Your task to perform on an android device: turn on notifications settings in the gmail app Image 0: 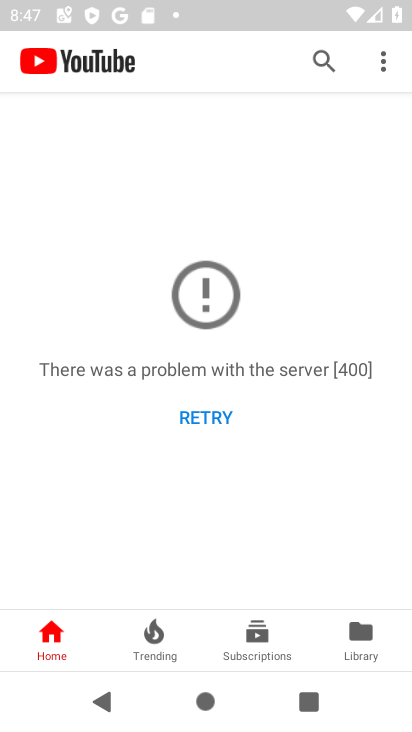
Step 0: press home button
Your task to perform on an android device: turn on notifications settings in the gmail app Image 1: 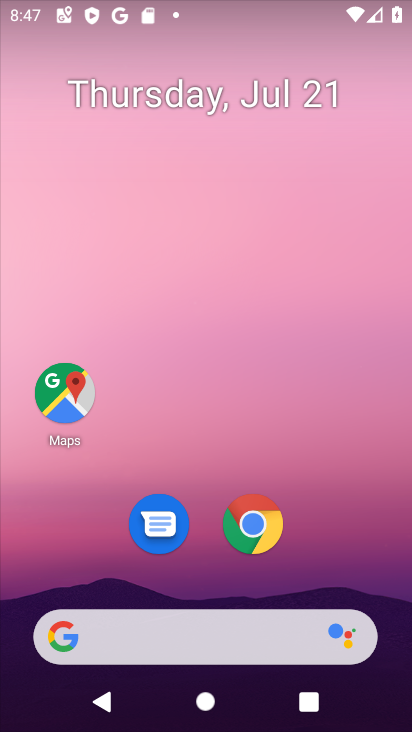
Step 1: drag from (170, 634) to (299, 64)
Your task to perform on an android device: turn on notifications settings in the gmail app Image 2: 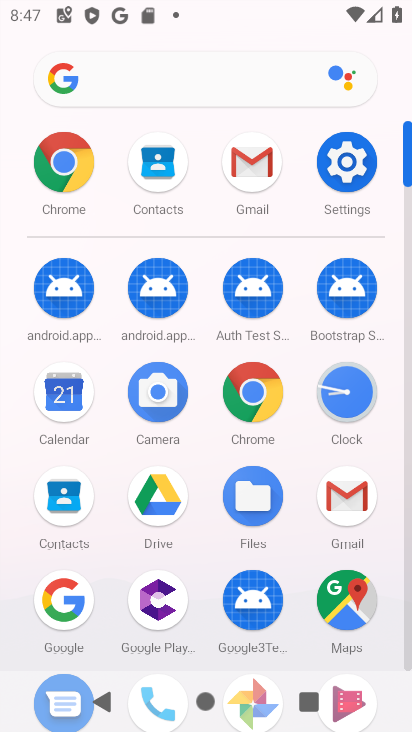
Step 2: click (248, 169)
Your task to perform on an android device: turn on notifications settings in the gmail app Image 3: 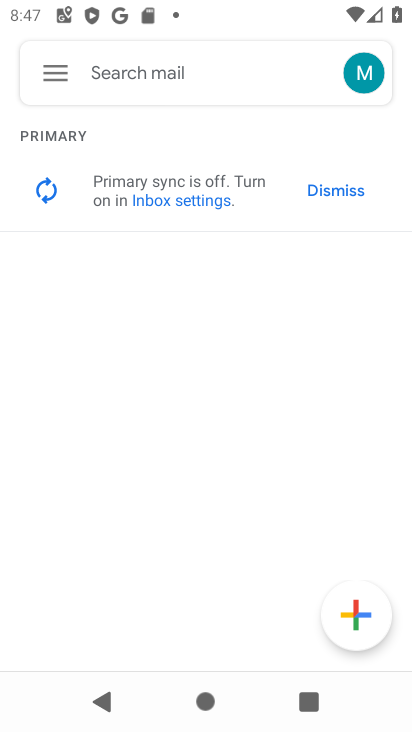
Step 3: click (58, 71)
Your task to perform on an android device: turn on notifications settings in the gmail app Image 4: 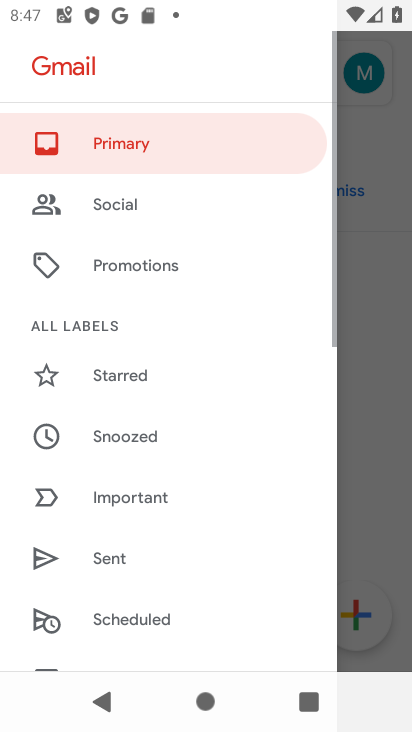
Step 4: drag from (187, 611) to (315, 22)
Your task to perform on an android device: turn on notifications settings in the gmail app Image 5: 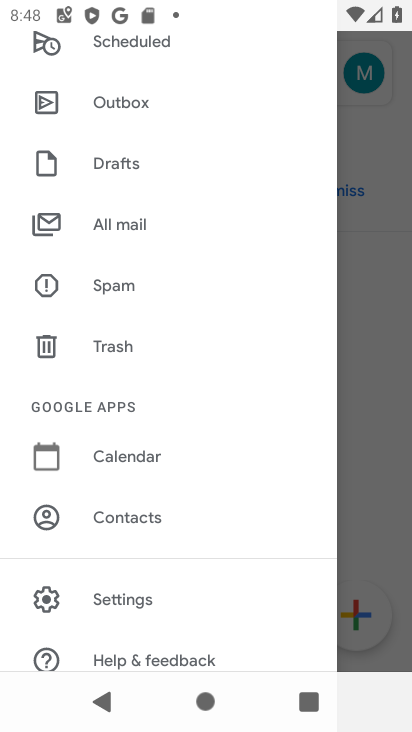
Step 5: click (108, 598)
Your task to perform on an android device: turn on notifications settings in the gmail app Image 6: 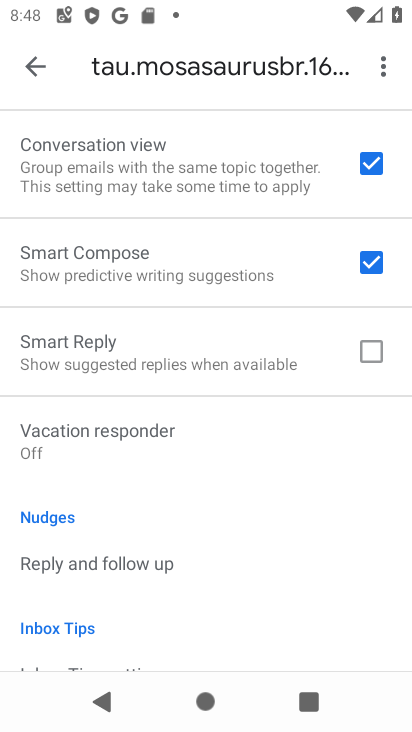
Step 6: drag from (261, 137) to (236, 615)
Your task to perform on an android device: turn on notifications settings in the gmail app Image 7: 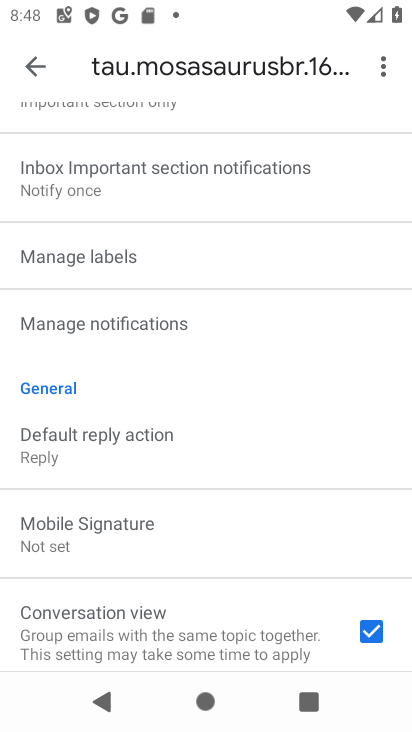
Step 7: drag from (247, 225) to (195, 645)
Your task to perform on an android device: turn on notifications settings in the gmail app Image 8: 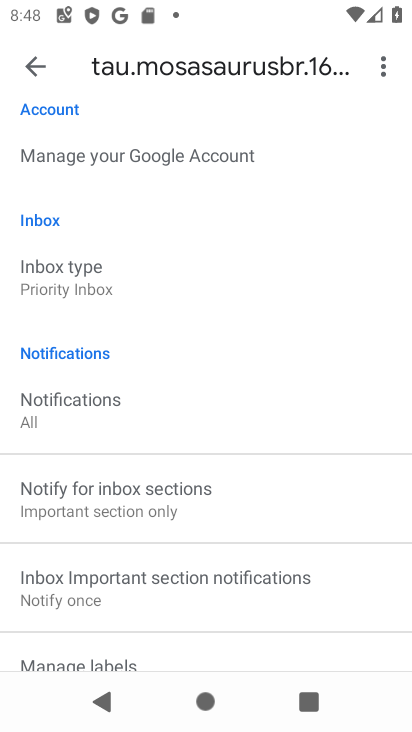
Step 8: click (54, 426)
Your task to perform on an android device: turn on notifications settings in the gmail app Image 9: 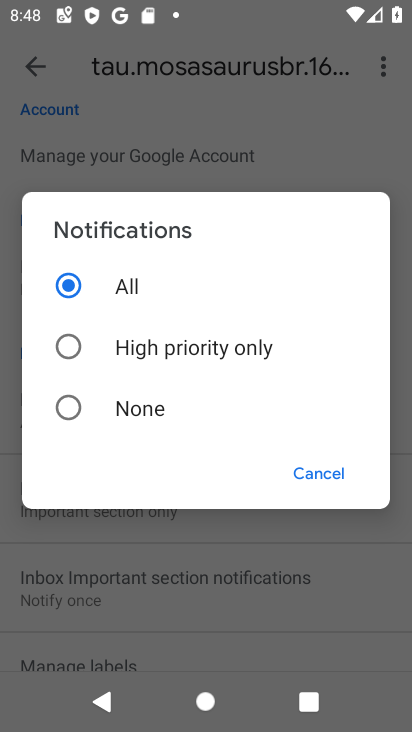
Step 9: task complete